Your task to perform on an android device: What is the recent news? Image 0: 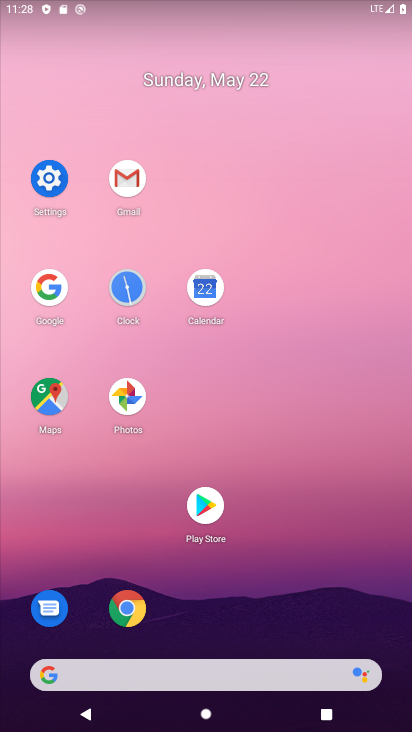
Step 0: click (49, 305)
Your task to perform on an android device: What is the recent news? Image 1: 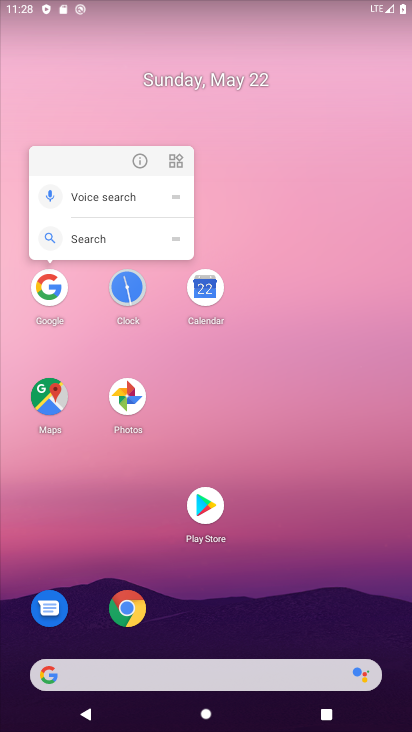
Step 1: click (44, 298)
Your task to perform on an android device: What is the recent news? Image 2: 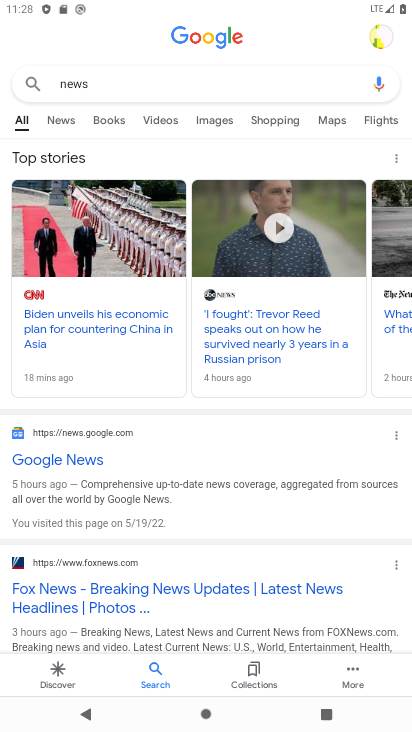
Step 2: click (177, 84)
Your task to perform on an android device: What is the recent news? Image 3: 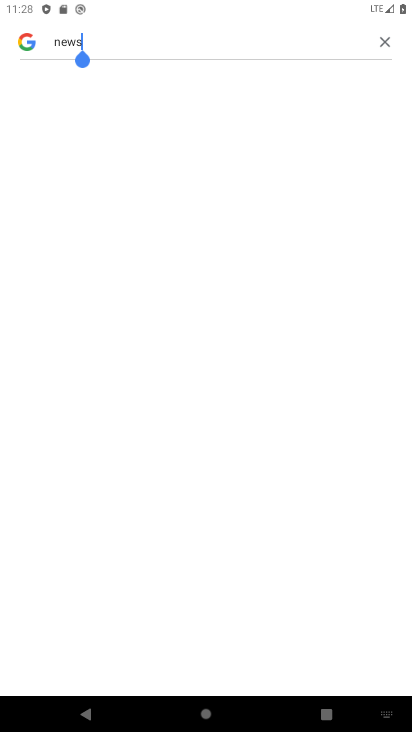
Step 3: click (392, 40)
Your task to perform on an android device: What is the recent news? Image 4: 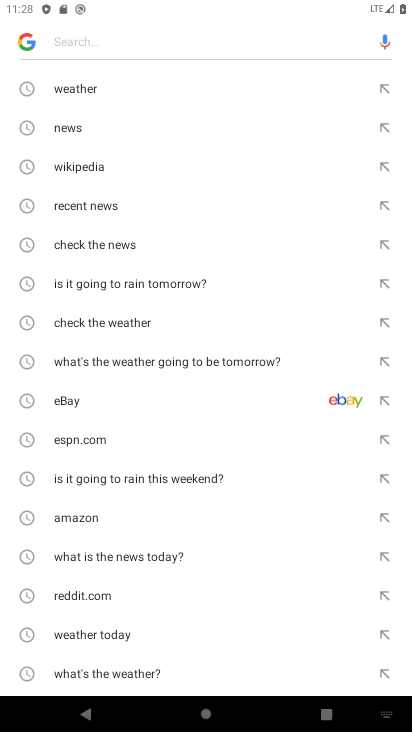
Step 4: click (111, 198)
Your task to perform on an android device: What is the recent news? Image 5: 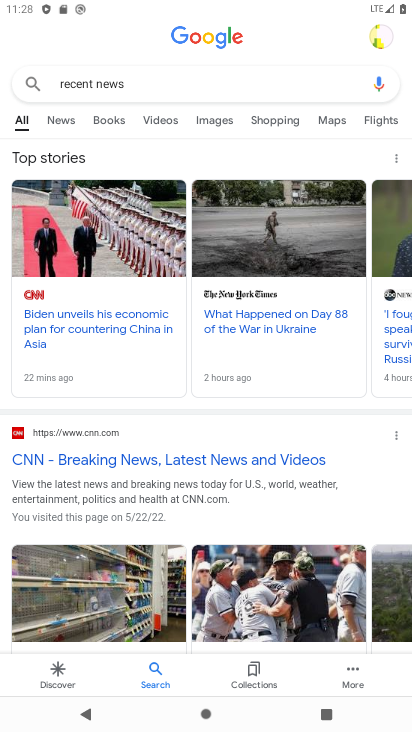
Step 5: task complete